Your task to perform on an android device: Go to wifi settings Image 0: 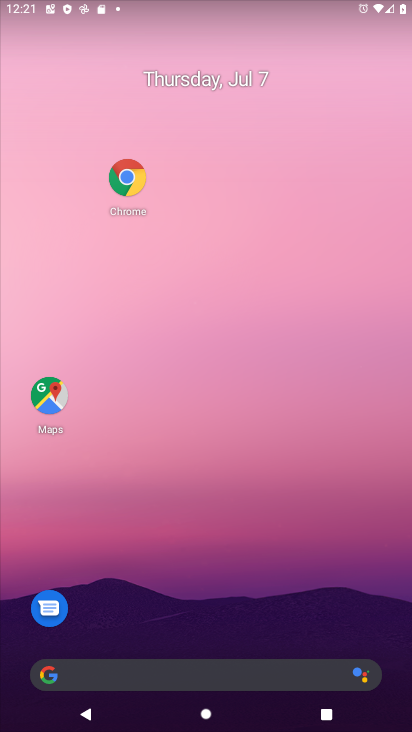
Step 0: drag from (251, 649) to (309, 200)
Your task to perform on an android device: Go to wifi settings Image 1: 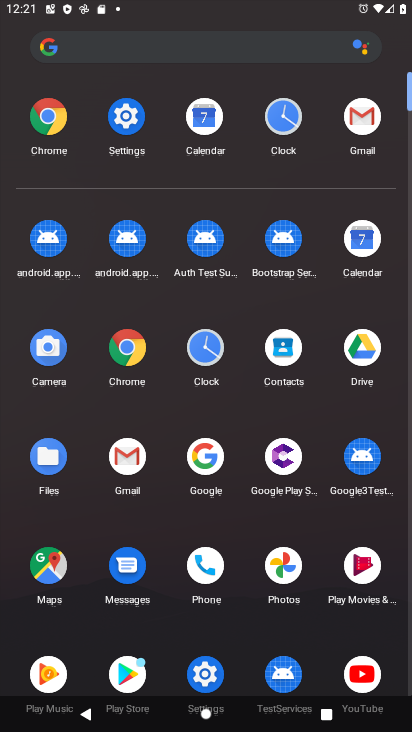
Step 1: click (121, 127)
Your task to perform on an android device: Go to wifi settings Image 2: 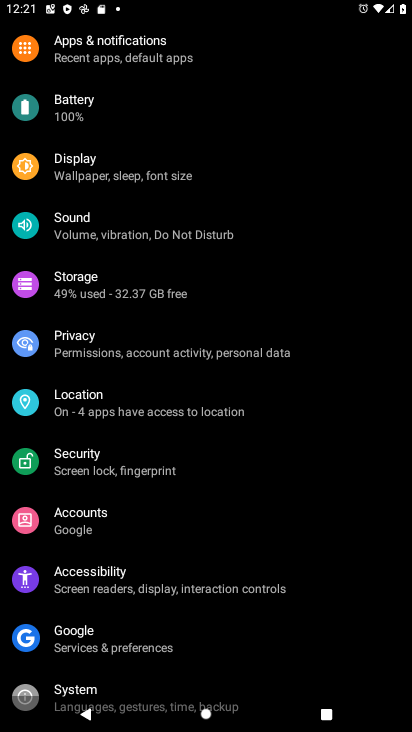
Step 2: click (129, 56)
Your task to perform on an android device: Go to wifi settings Image 3: 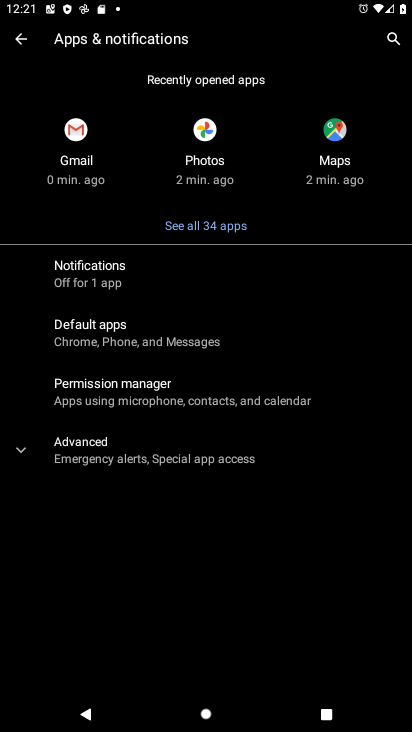
Step 3: click (25, 47)
Your task to perform on an android device: Go to wifi settings Image 4: 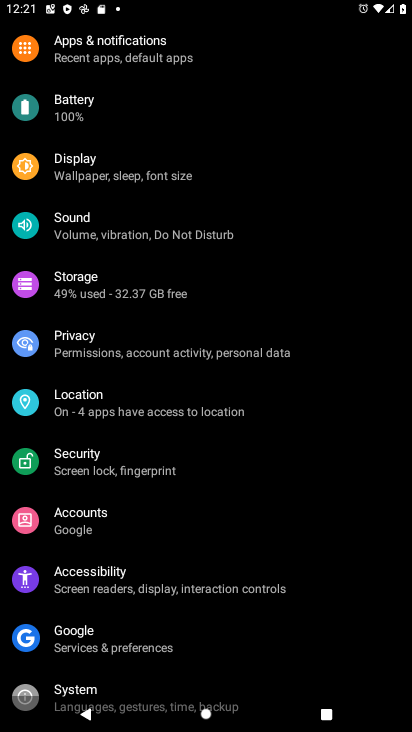
Step 4: drag from (137, 65) to (181, 467)
Your task to perform on an android device: Go to wifi settings Image 5: 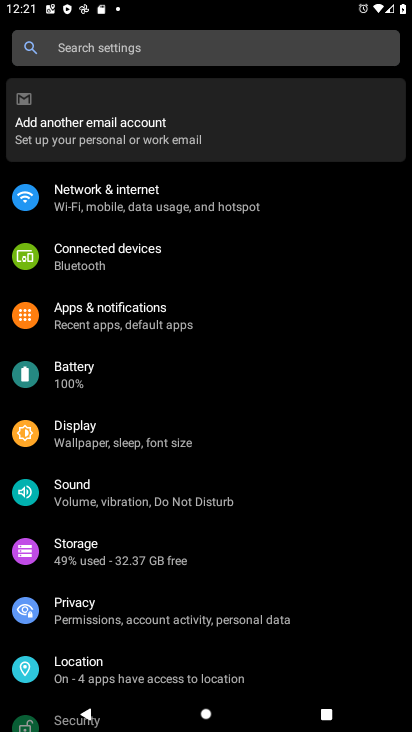
Step 5: click (132, 195)
Your task to perform on an android device: Go to wifi settings Image 6: 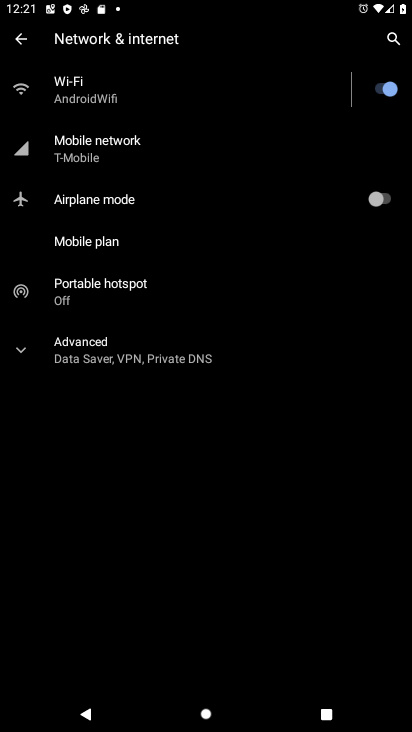
Step 6: click (157, 103)
Your task to perform on an android device: Go to wifi settings Image 7: 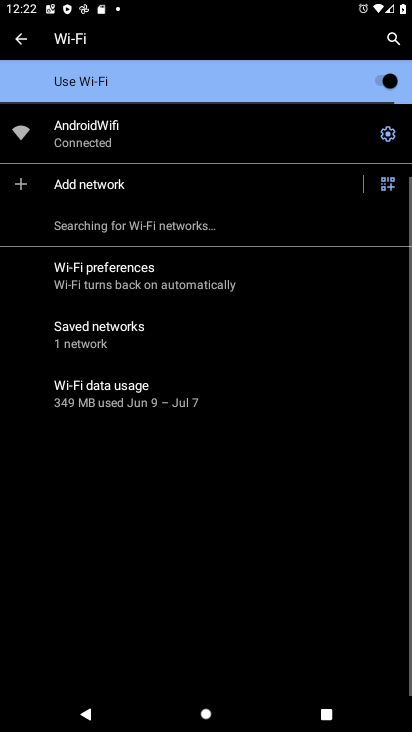
Step 7: click (386, 134)
Your task to perform on an android device: Go to wifi settings Image 8: 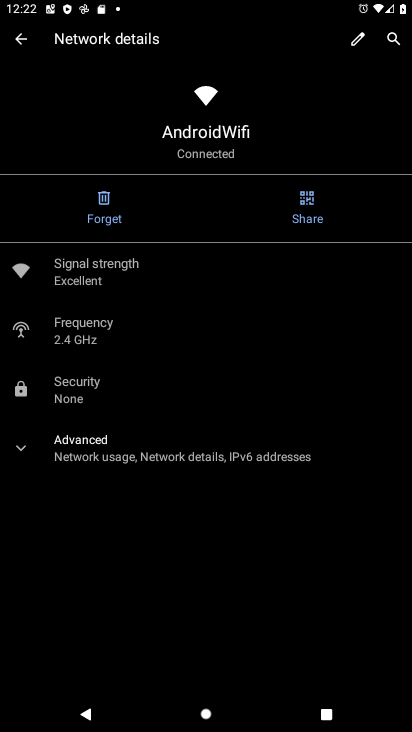
Step 8: click (138, 455)
Your task to perform on an android device: Go to wifi settings Image 9: 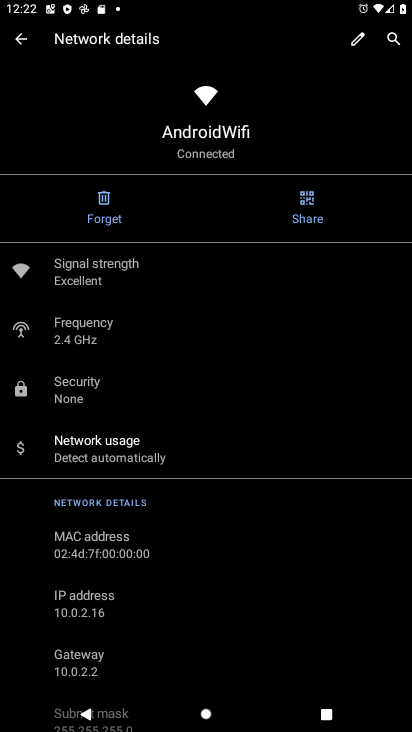
Step 9: task complete